Your task to perform on an android device: Go to privacy settings Image 0: 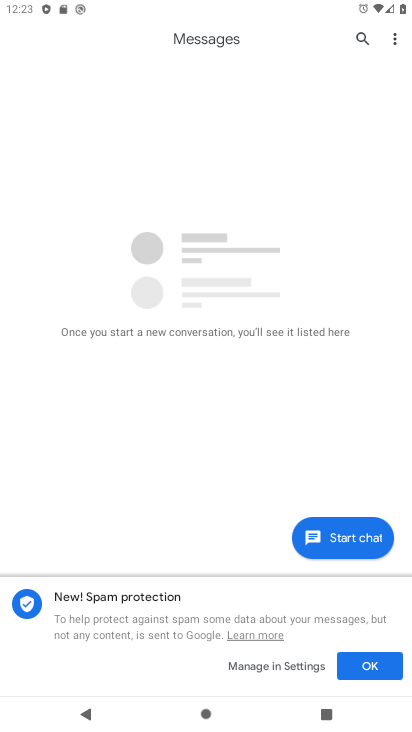
Step 0: press home button
Your task to perform on an android device: Go to privacy settings Image 1: 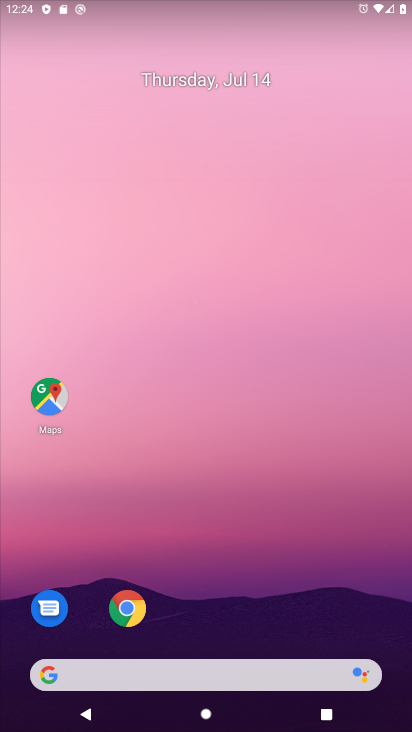
Step 1: drag from (193, 672) to (297, 200)
Your task to perform on an android device: Go to privacy settings Image 2: 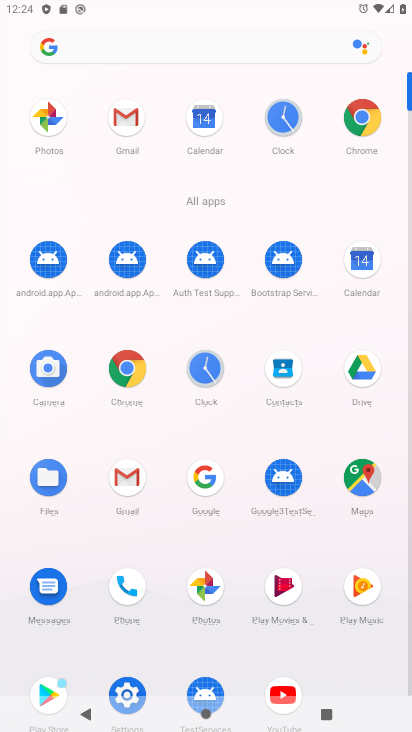
Step 2: click (126, 693)
Your task to perform on an android device: Go to privacy settings Image 3: 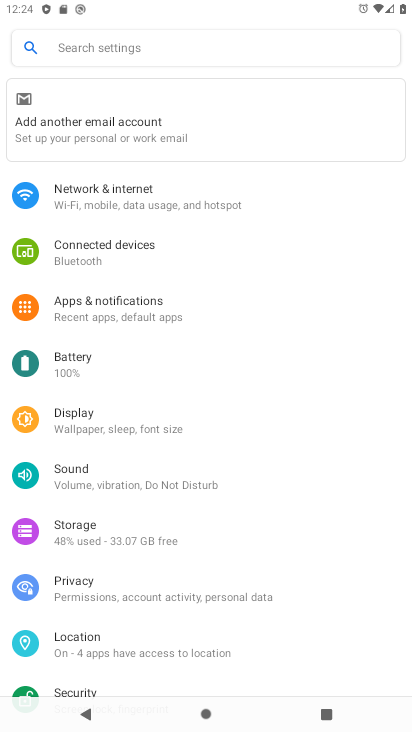
Step 3: click (97, 592)
Your task to perform on an android device: Go to privacy settings Image 4: 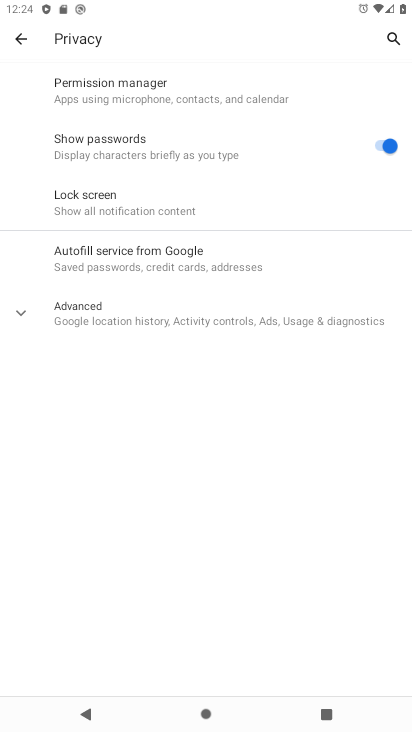
Step 4: task complete